Your task to perform on an android device: turn off airplane mode Image 0: 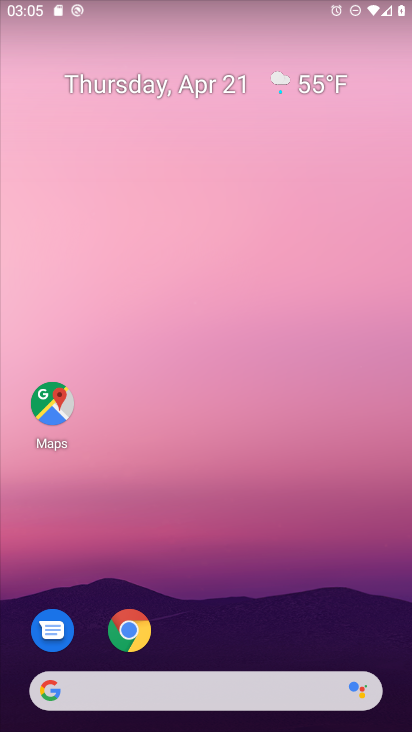
Step 0: drag from (318, 642) to (279, 204)
Your task to perform on an android device: turn off airplane mode Image 1: 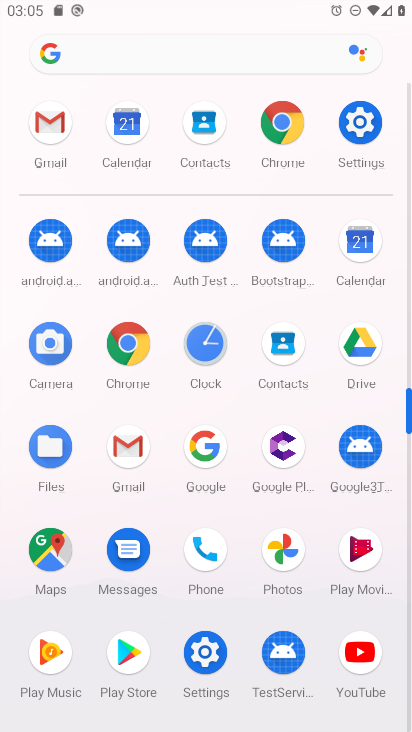
Step 1: click (351, 145)
Your task to perform on an android device: turn off airplane mode Image 2: 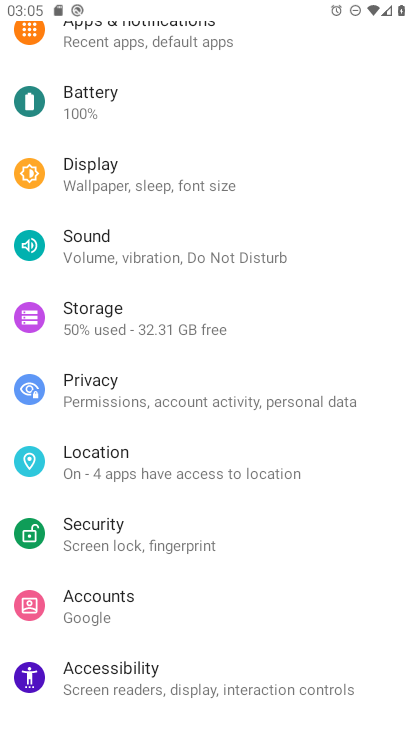
Step 2: drag from (258, 130) to (207, 634)
Your task to perform on an android device: turn off airplane mode Image 3: 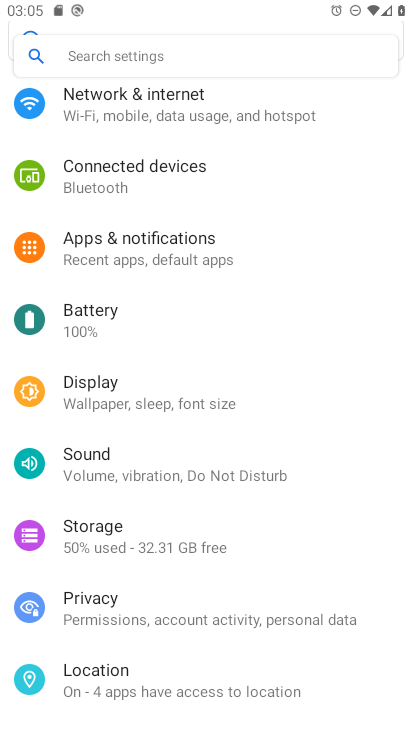
Step 3: click (259, 121)
Your task to perform on an android device: turn off airplane mode Image 4: 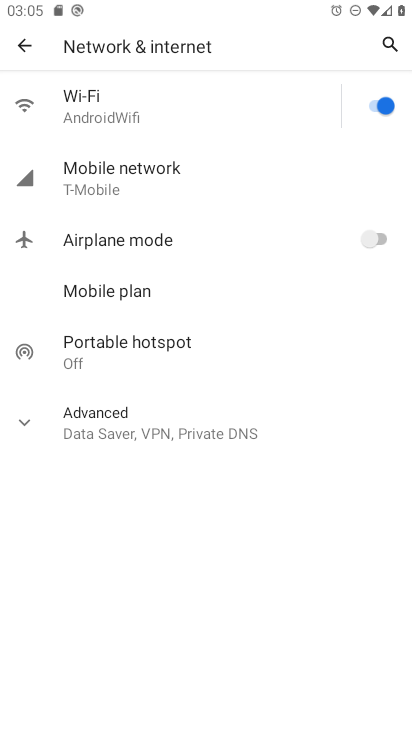
Step 4: task complete